Your task to perform on an android device: turn off picture-in-picture Image 0: 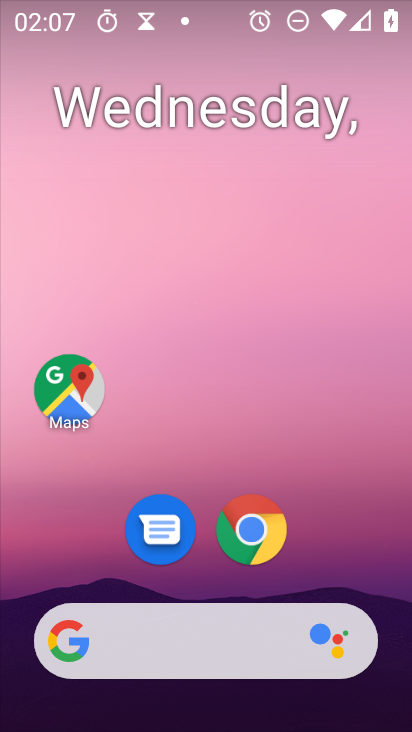
Step 0: drag from (238, 654) to (298, 59)
Your task to perform on an android device: turn off picture-in-picture Image 1: 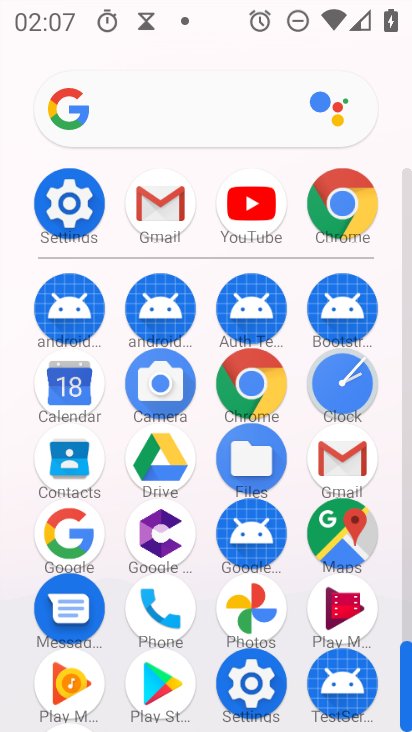
Step 1: click (266, 683)
Your task to perform on an android device: turn off picture-in-picture Image 2: 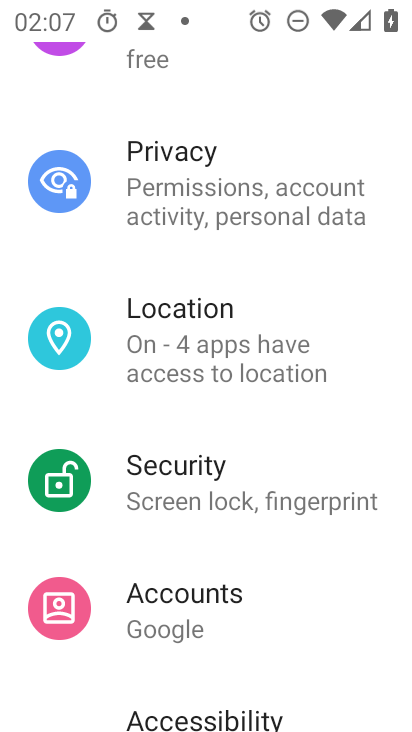
Step 2: drag from (254, 235) to (262, 724)
Your task to perform on an android device: turn off picture-in-picture Image 3: 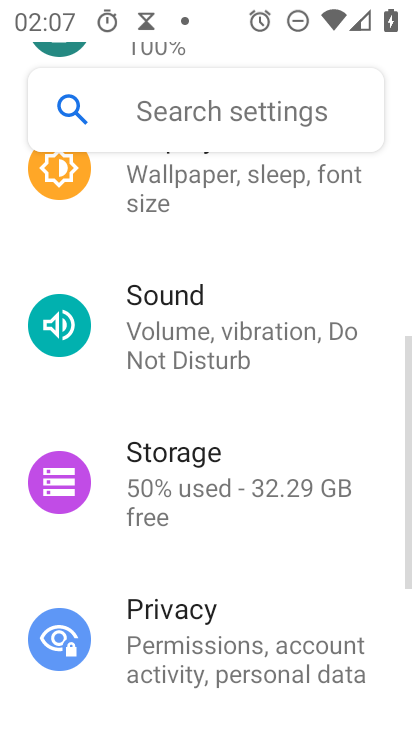
Step 3: drag from (233, 298) to (297, 716)
Your task to perform on an android device: turn off picture-in-picture Image 4: 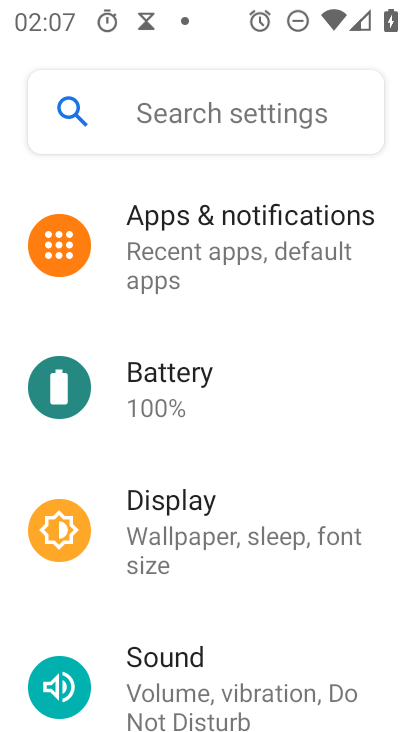
Step 4: click (262, 240)
Your task to perform on an android device: turn off picture-in-picture Image 5: 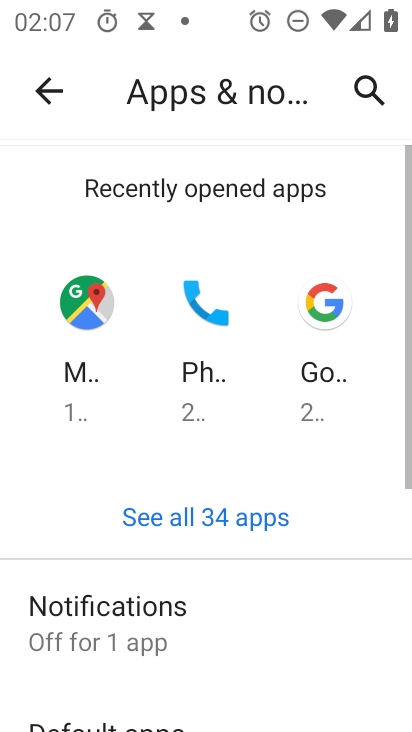
Step 5: drag from (218, 642) to (263, 95)
Your task to perform on an android device: turn off picture-in-picture Image 6: 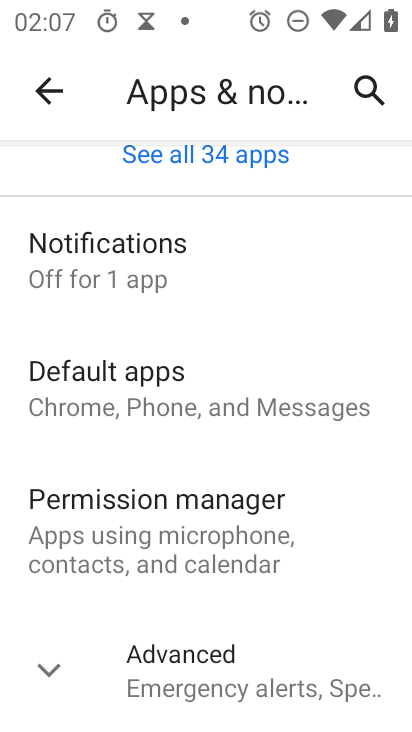
Step 6: drag from (277, 637) to (294, 486)
Your task to perform on an android device: turn off picture-in-picture Image 7: 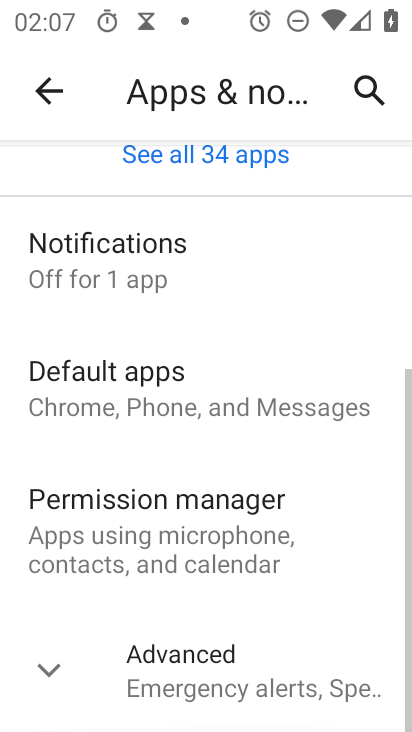
Step 7: click (283, 685)
Your task to perform on an android device: turn off picture-in-picture Image 8: 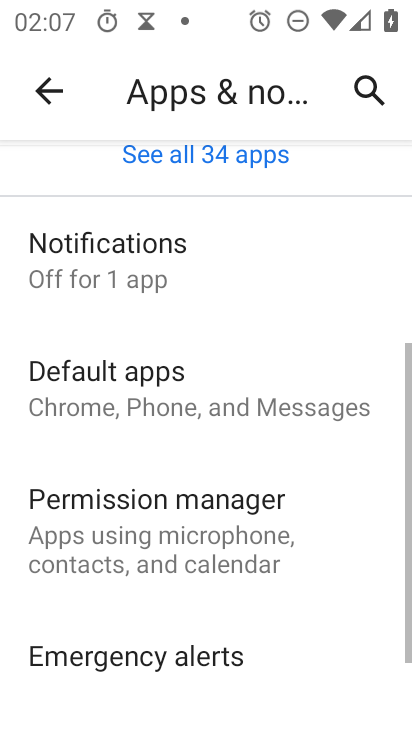
Step 8: drag from (283, 685) to (296, 107)
Your task to perform on an android device: turn off picture-in-picture Image 9: 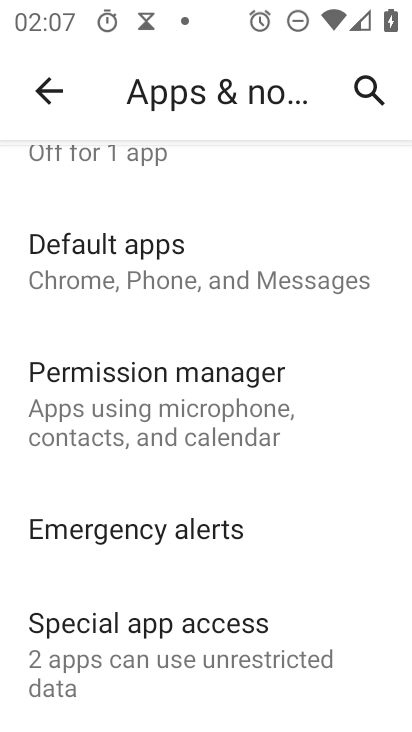
Step 9: click (253, 671)
Your task to perform on an android device: turn off picture-in-picture Image 10: 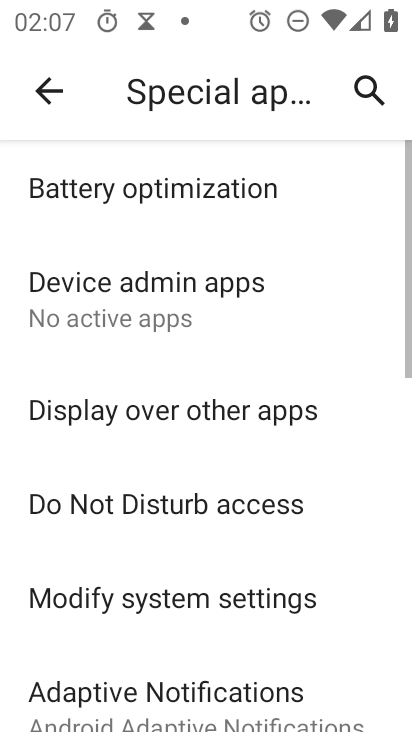
Step 10: drag from (262, 666) to (240, 171)
Your task to perform on an android device: turn off picture-in-picture Image 11: 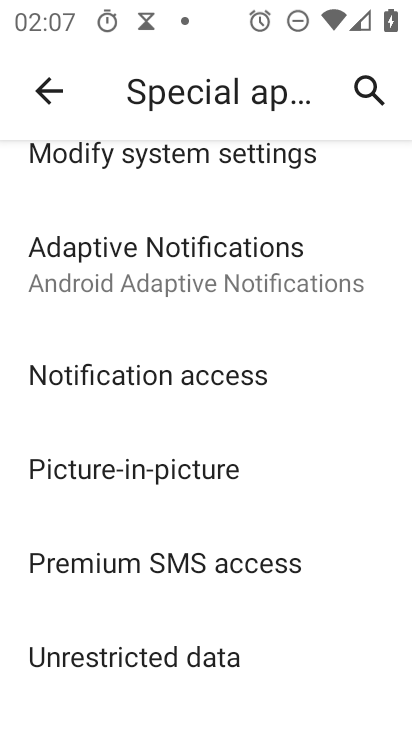
Step 11: click (190, 483)
Your task to perform on an android device: turn off picture-in-picture Image 12: 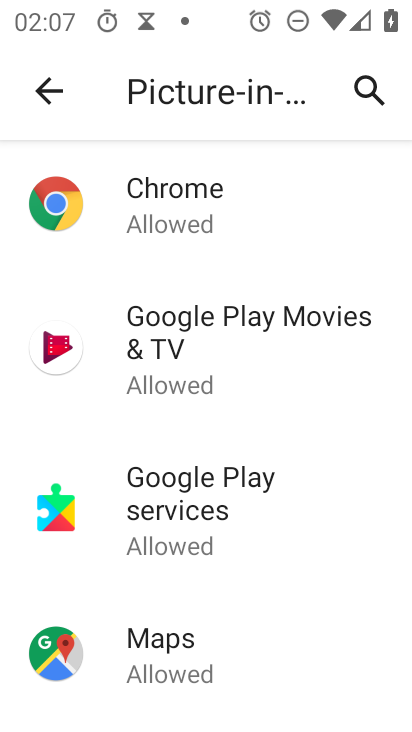
Step 12: click (186, 184)
Your task to perform on an android device: turn off picture-in-picture Image 13: 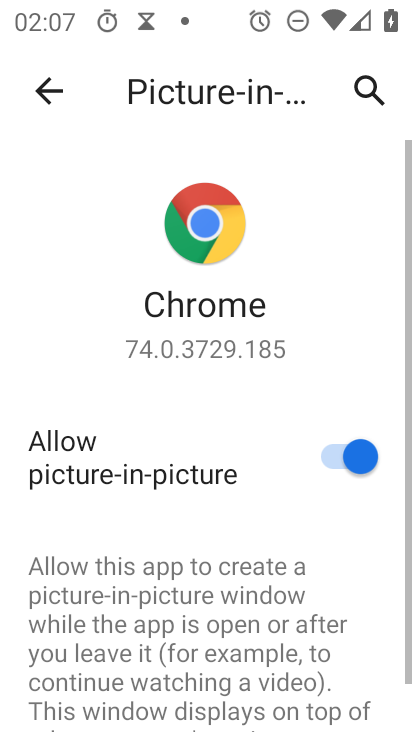
Step 13: click (339, 449)
Your task to perform on an android device: turn off picture-in-picture Image 14: 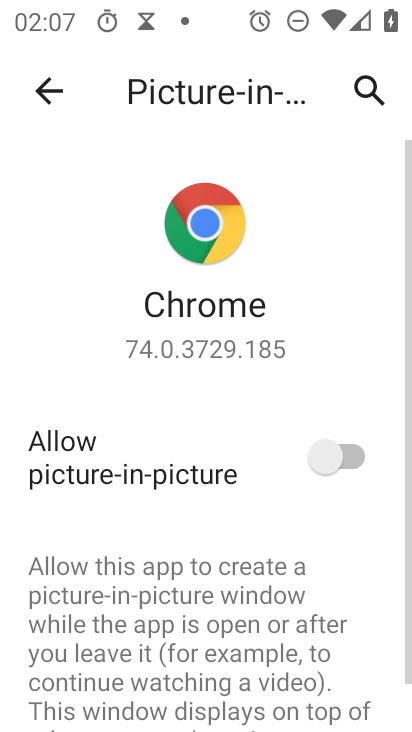
Step 14: press back button
Your task to perform on an android device: turn off picture-in-picture Image 15: 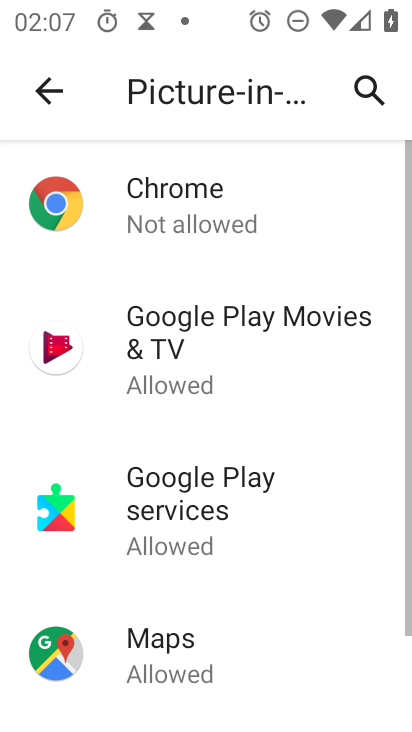
Step 15: click (307, 349)
Your task to perform on an android device: turn off picture-in-picture Image 16: 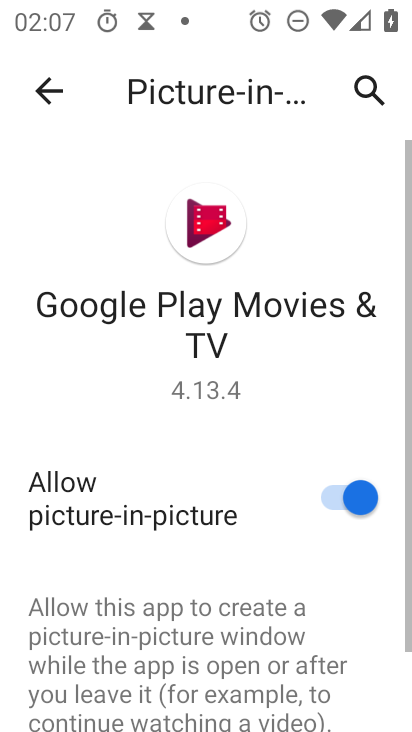
Step 16: click (325, 491)
Your task to perform on an android device: turn off picture-in-picture Image 17: 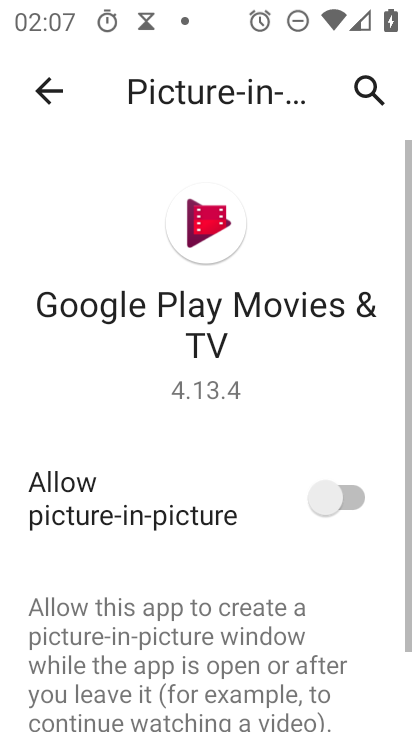
Step 17: press back button
Your task to perform on an android device: turn off picture-in-picture Image 18: 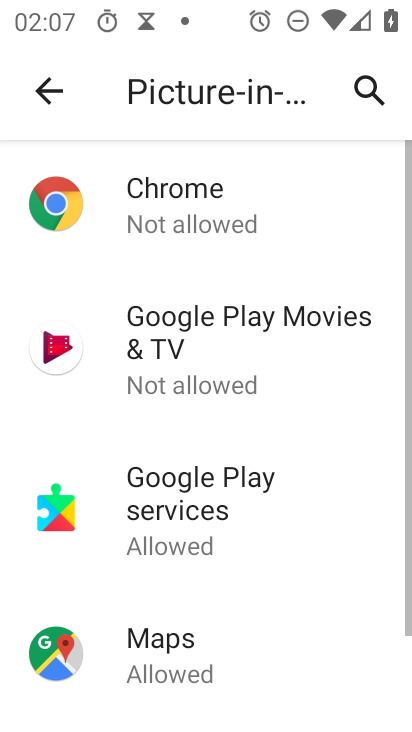
Step 18: click (271, 527)
Your task to perform on an android device: turn off picture-in-picture Image 19: 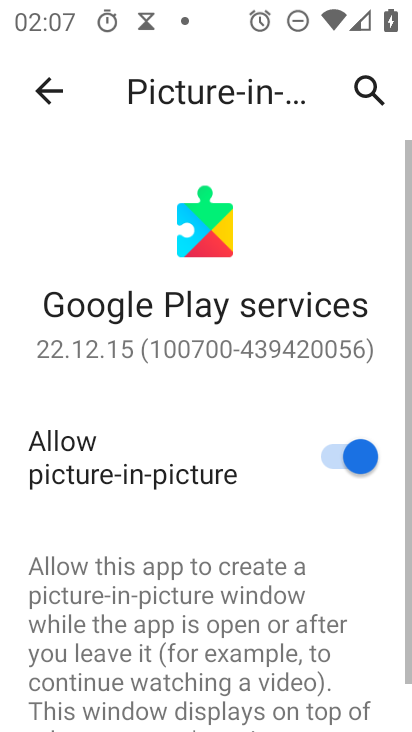
Step 19: click (337, 459)
Your task to perform on an android device: turn off picture-in-picture Image 20: 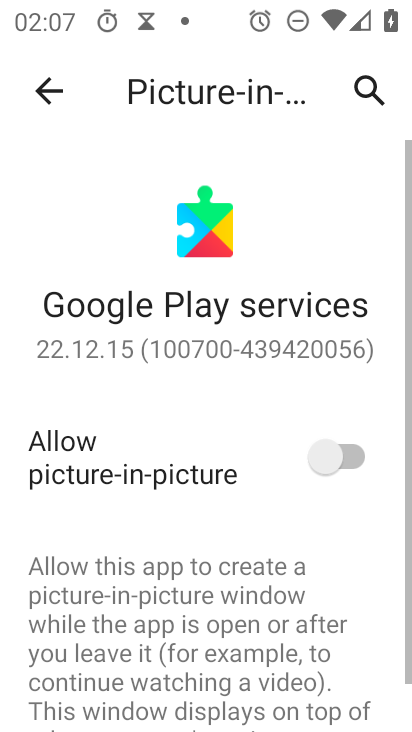
Step 20: press back button
Your task to perform on an android device: turn off picture-in-picture Image 21: 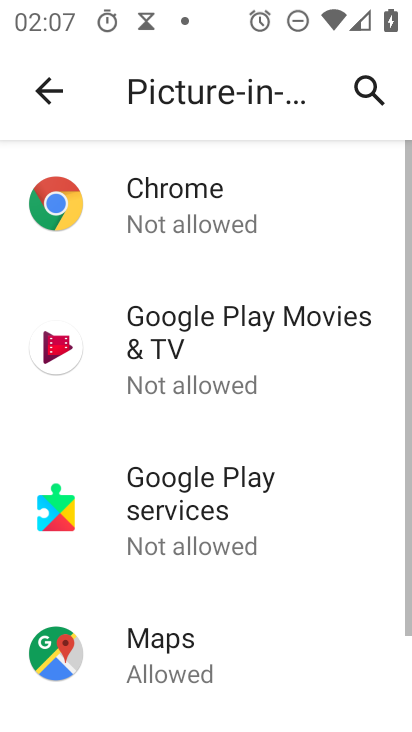
Step 21: click (213, 667)
Your task to perform on an android device: turn off picture-in-picture Image 22: 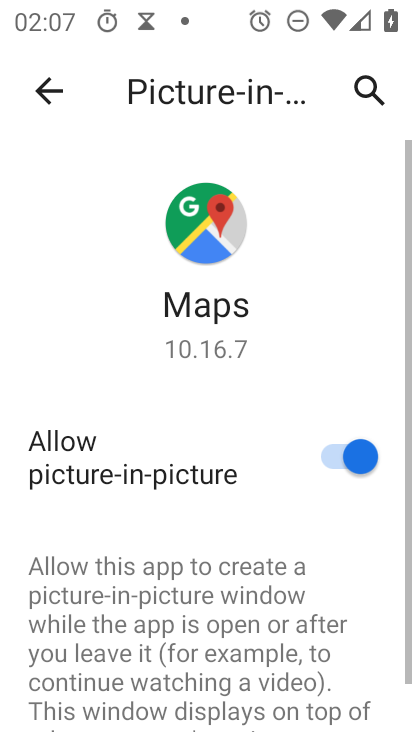
Step 22: click (320, 460)
Your task to perform on an android device: turn off picture-in-picture Image 23: 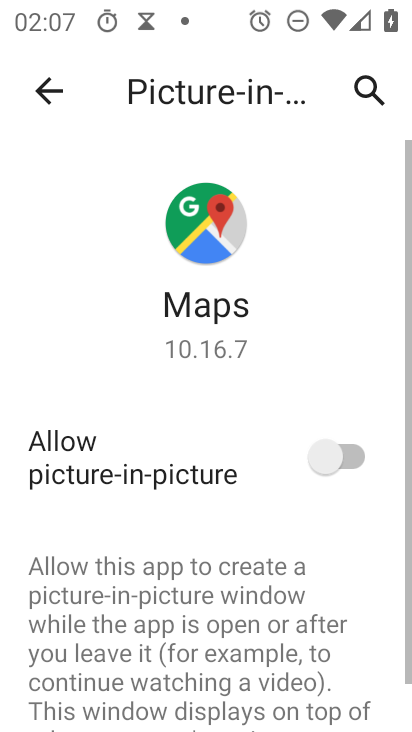
Step 23: press back button
Your task to perform on an android device: turn off picture-in-picture Image 24: 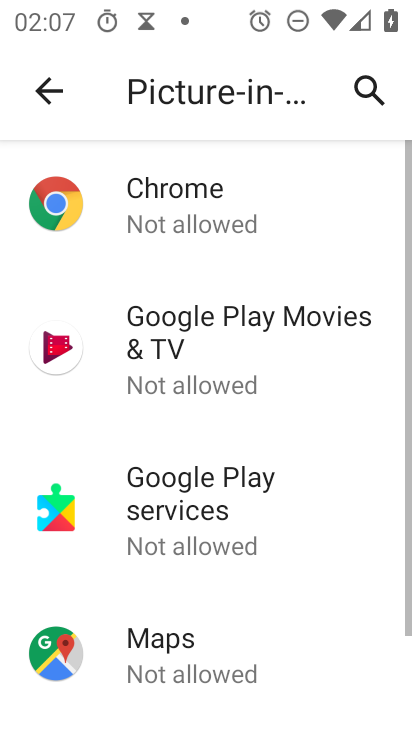
Step 24: drag from (325, 619) to (315, 106)
Your task to perform on an android device: turn off picture-in-picture Image 25: 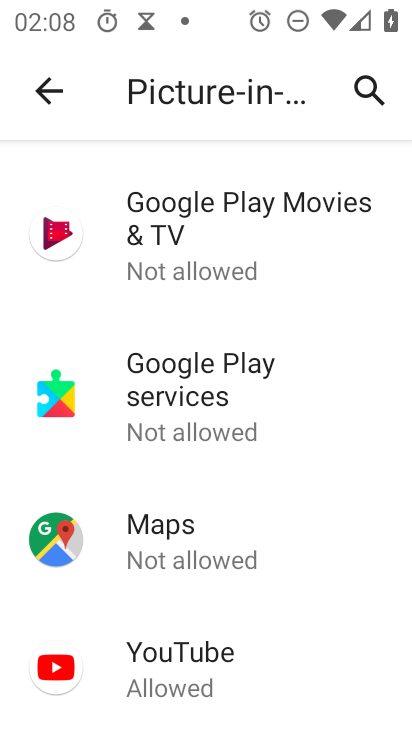
Step 25: click (221, 665)
Your task to perform on an android device: turn off picture-in-picture Image 26: 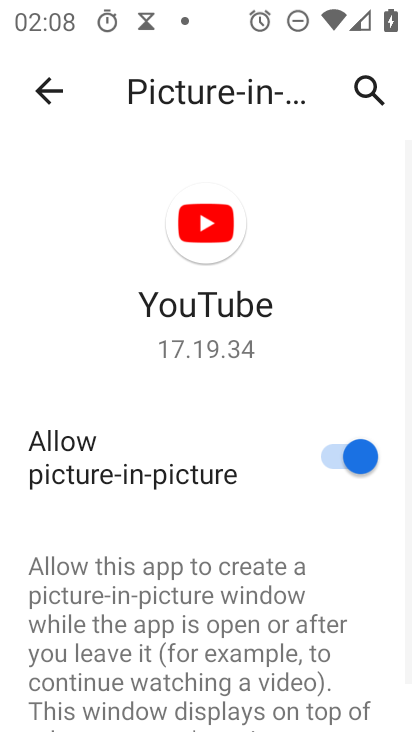
Step 26: click (342, 448)
Your task to perform on an android device: turn off picture-in-picture Image 27: 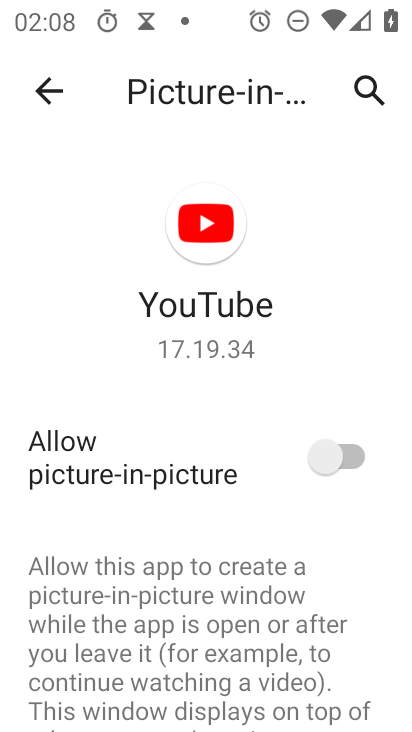
Step 27: task complete